Your task to perform on an android device: Go to calendar. Show me events next week Image 0: 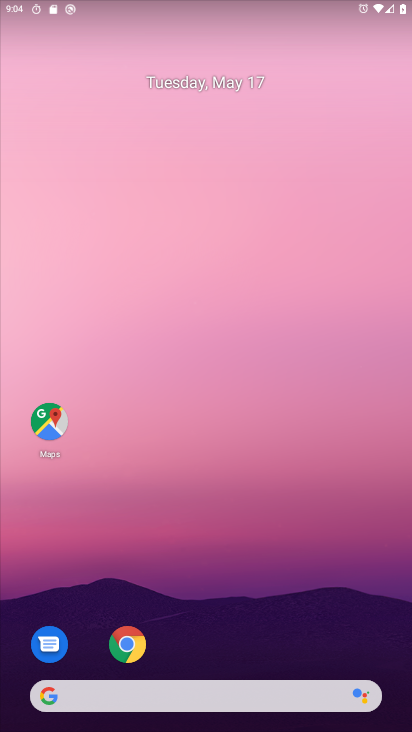
Step 0: drag from (224, 654) to (240, 39)
Your task to perform on an android device: Go to calendar. Show me events next week Image 1: 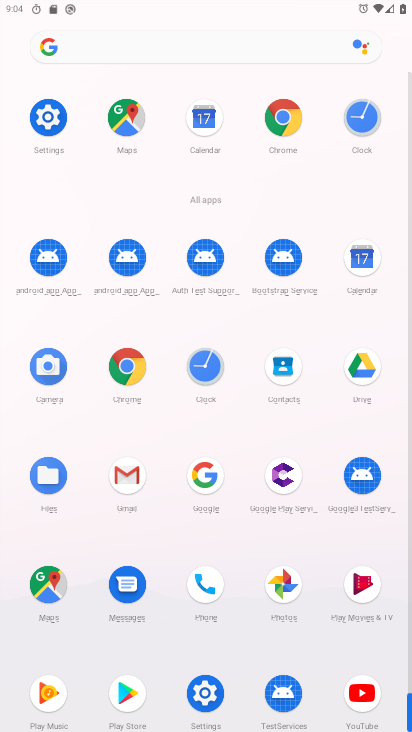
Step 1: click (358, 251)
Your task to perform on an android device: Go to calendar. Show me events next week Image 2: 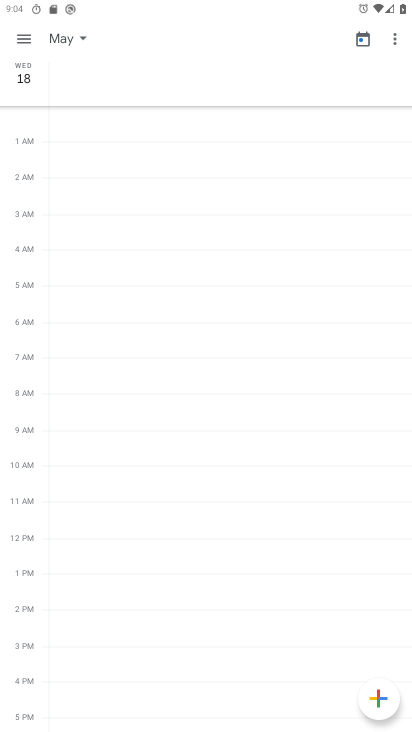
Step 2: click (24, 86)
Your task to perform on an android device: Go to calendar. Show me events next week Image 3: 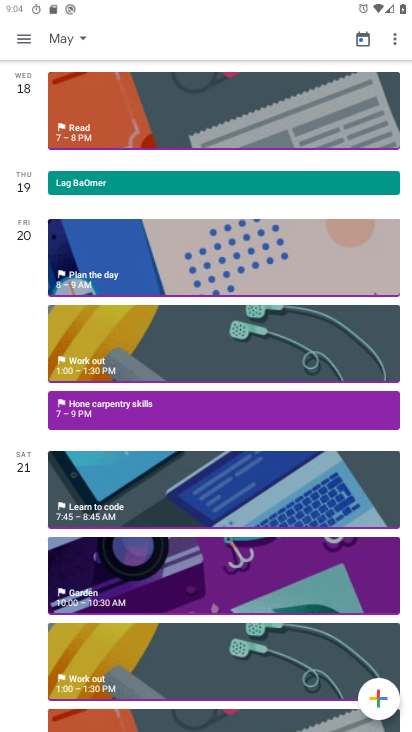
Step 3: click (26, 36)
Your task to perform on an android device: Go to calendar. Show me events next week Image 4: 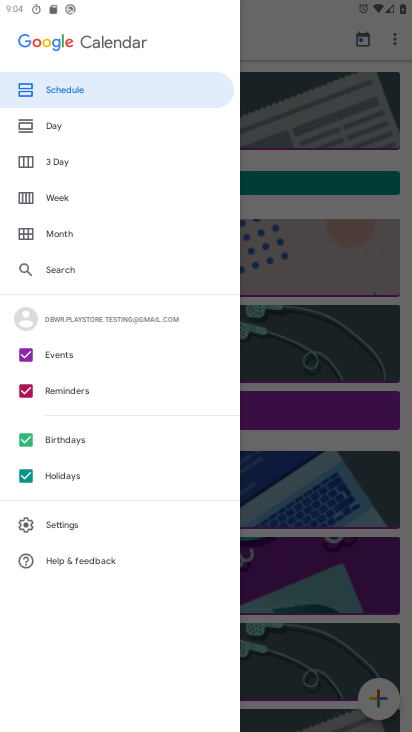
Step 4: click (63, 198)
Your task to perform on an android device: Go to calendar. Show me events next week Image 5: 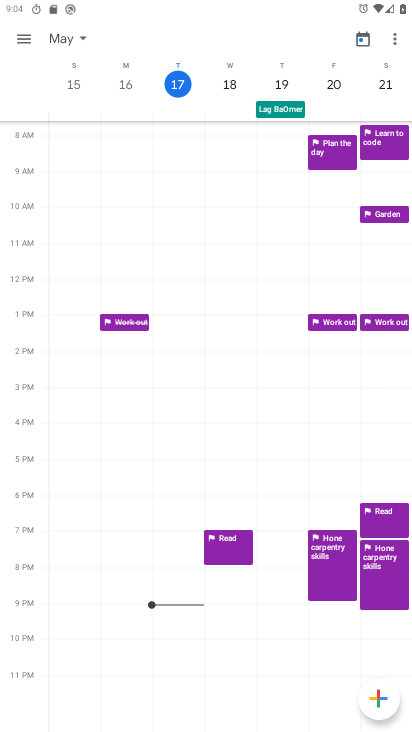
Step 5: drag from (375, 78) to (177, 79)
Your task to perform on an android device: Go to calendar. Show me events next week Image 6: 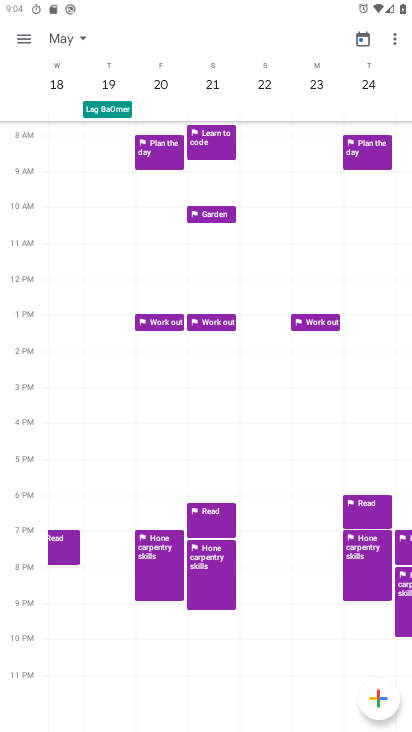
Step 6: drag from (112, 68) to (56, 60)
Your task to perform on an android device: Go to calendar. Show me events next week Image 7: 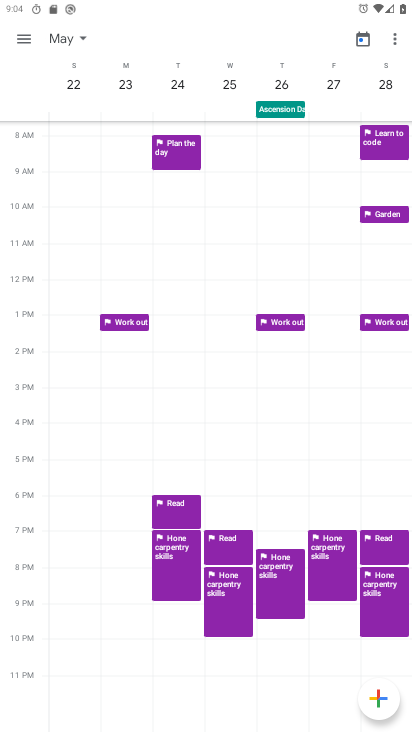
Step 7: click (70, 85)
Your task to perform on an android device: Go to calendar. Show me events next week Image 8: 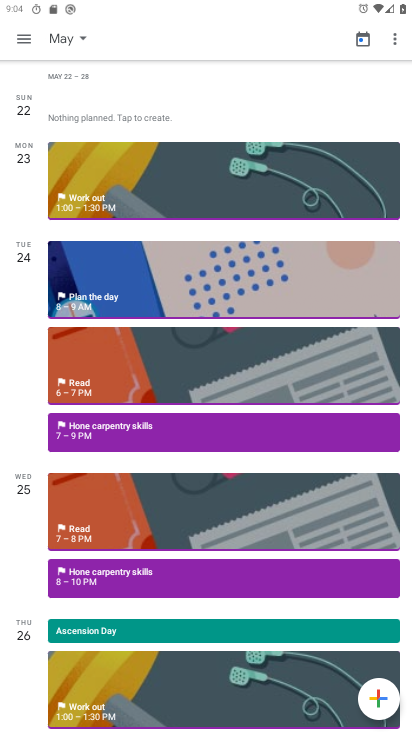
Step 8: task complete